Your task to perform on an android device: Open privacy settings Image 0: 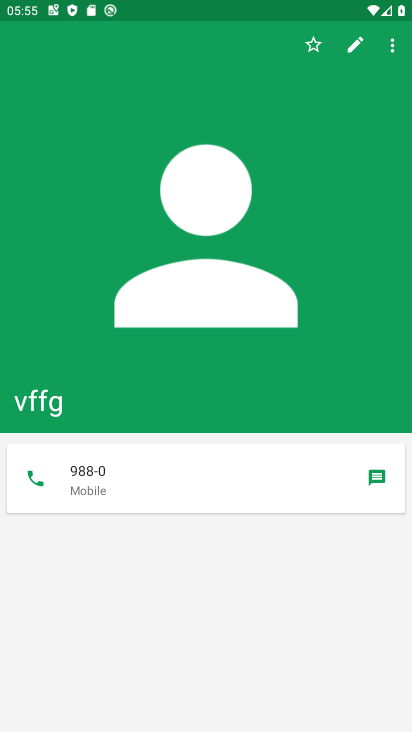
Step 0: press home button
Your task to perform on an android device: Open privacy settings Image 1: 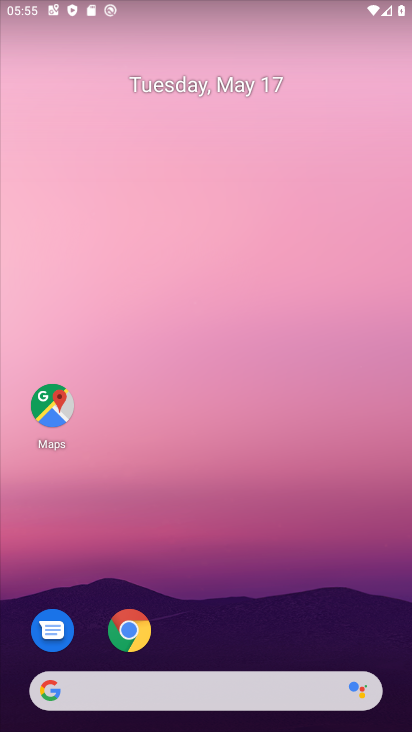
Step 1: click (116, 621)
Your task to perform on an android device: Open privacy settings Image 2: 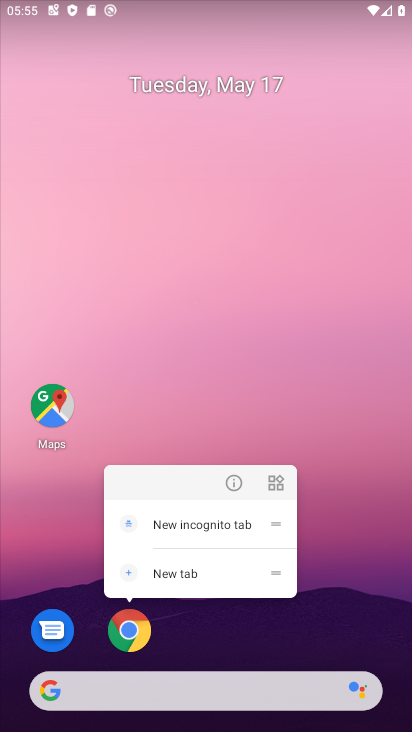
Step 2: click (176, 623)
Your task to perform on an android device: Open privacy settings Image 3: 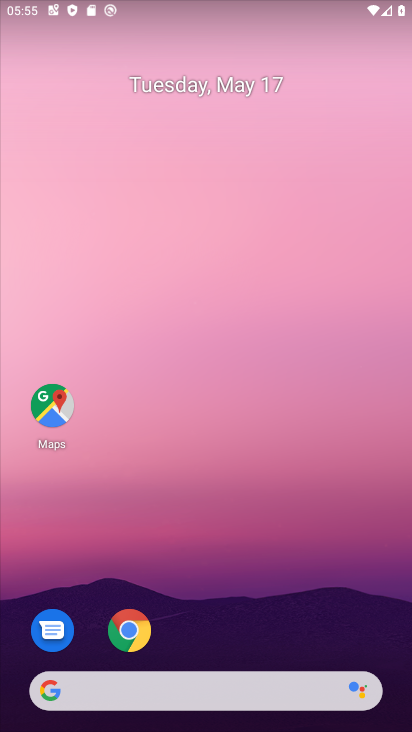
Step 3: drag from (176, 623) to (191, 36)
Your task to perform on an android device: Open privacy settings Image 4: 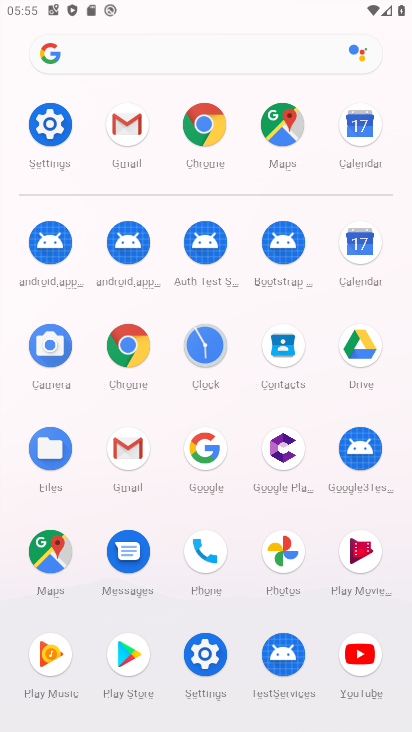
Step 4: click (206, 642)
Your task to perform on an android device: Open privacy settings Image 5: 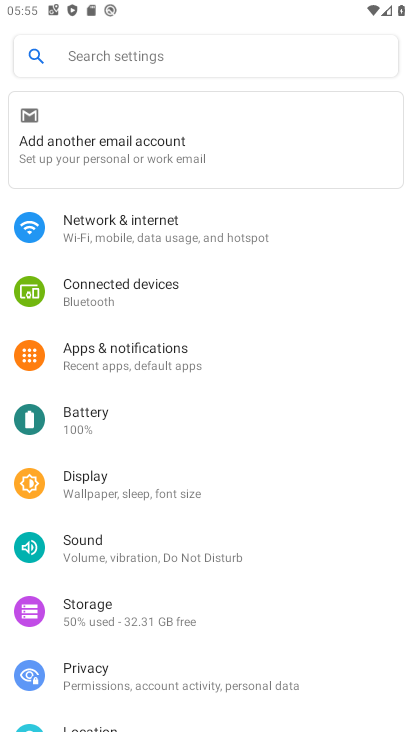
Step 5: click (79, 671)
Your task to perform on an android device: Open privacy settings Image 6: 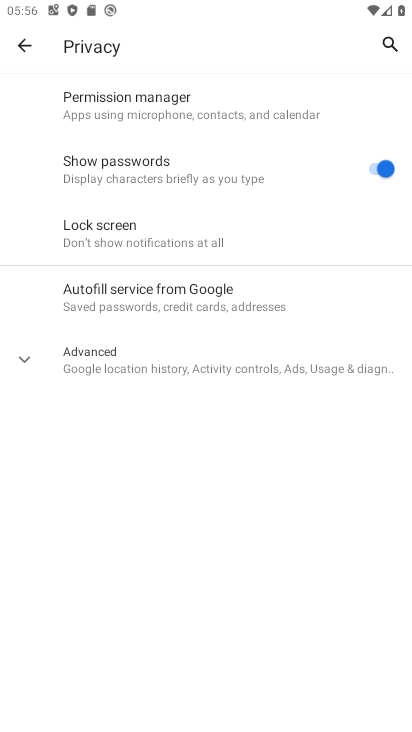
Step 6: task complete